Your task to perform on an android device: Go to Google maps Image 0: 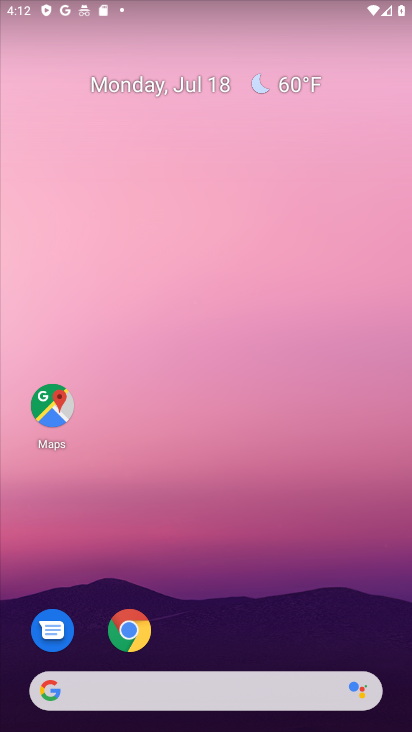
Step 0: drag from (226, 658) to (88, 127)
Your task to perform on an android device: Go to Google maps Image 1: 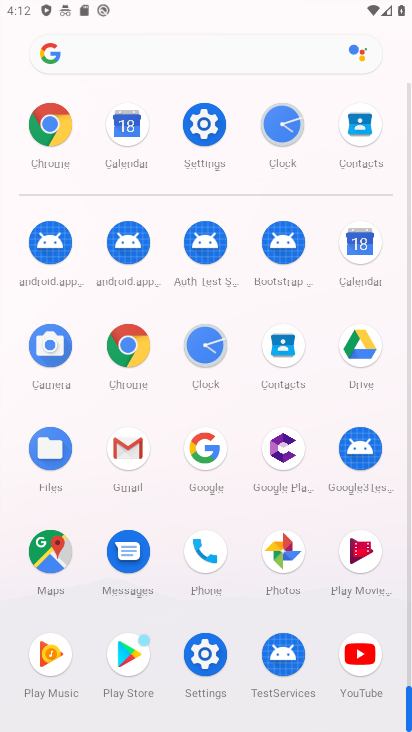
Step 1: click (63, 545)
Your task to perform on an android device: Go to Google maps Image 2: 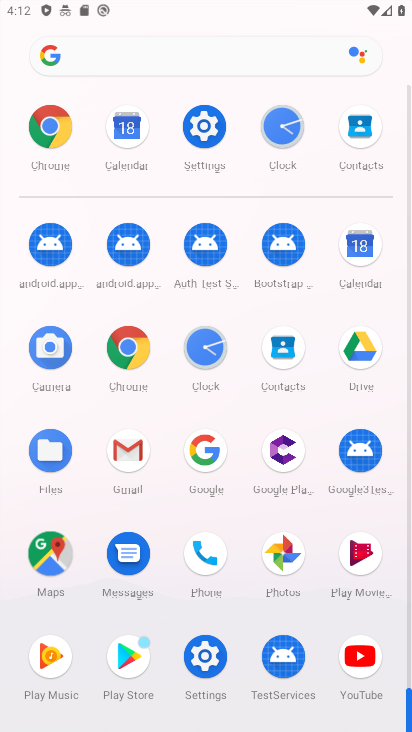
Step 2: click (46, 559)
Your task to perform on an android device: Go to Google maps Image 3: 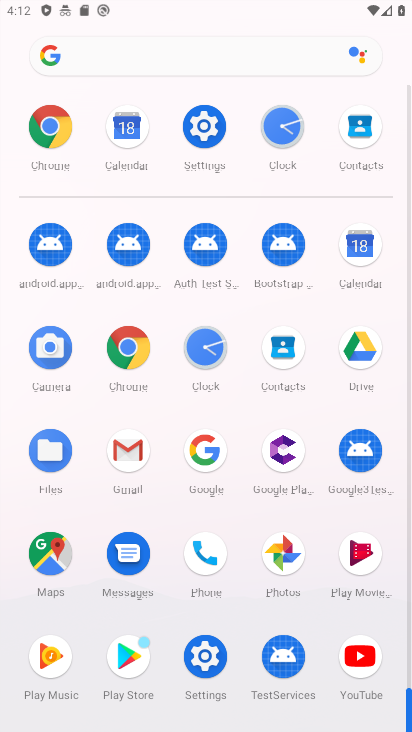
Step 3: click (56, 555)
Your task to perform on an android device: Go to Google maps Image 4: 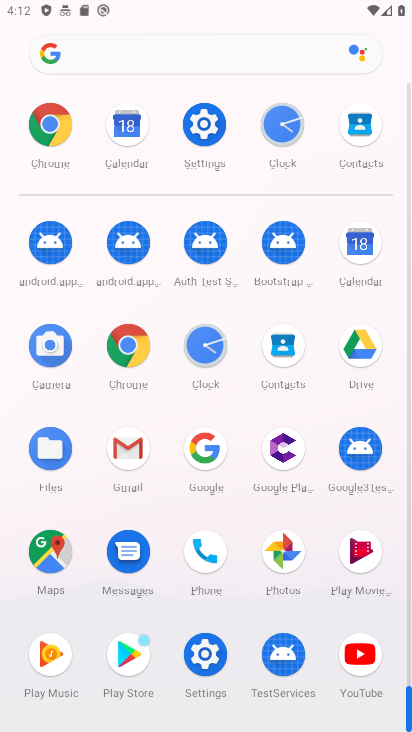
Step 4: click (52, 548)
Your task to perform on an android device: Go to Google maps Image 5: 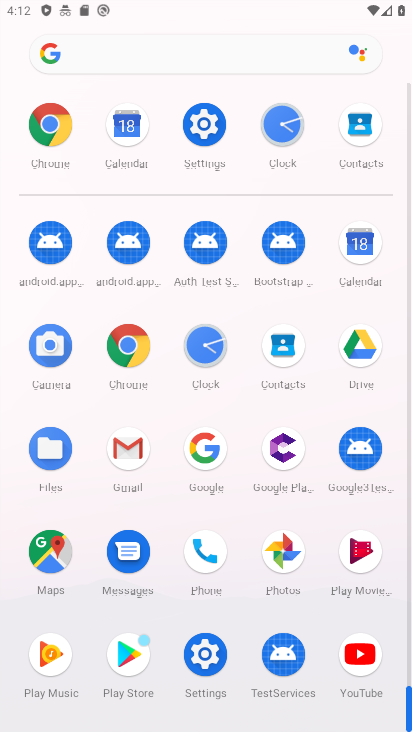
Step 5: click (48, 550)
Your task to perform on an android device: Go to Google maps Image 6: 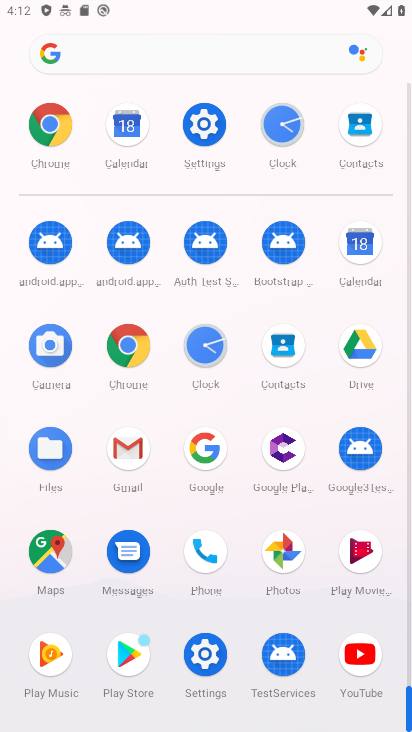
Step 6: click (50, 550)
Your task to perform on an android device: Go to Google maps Image 7: 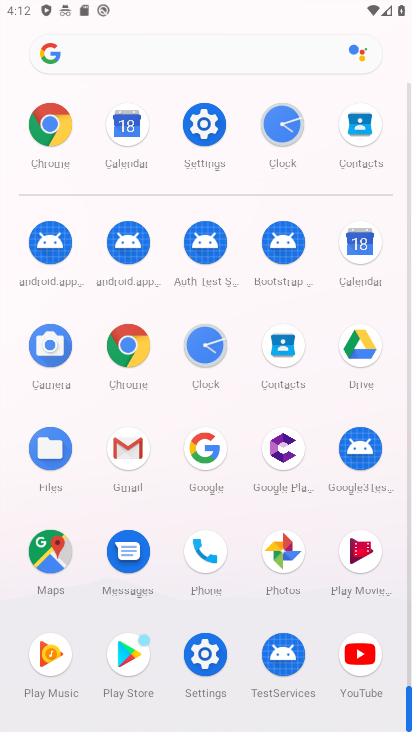
Step 7: click (49, 551)
Your task to perform on an android device: Go to Google maps Image 8: 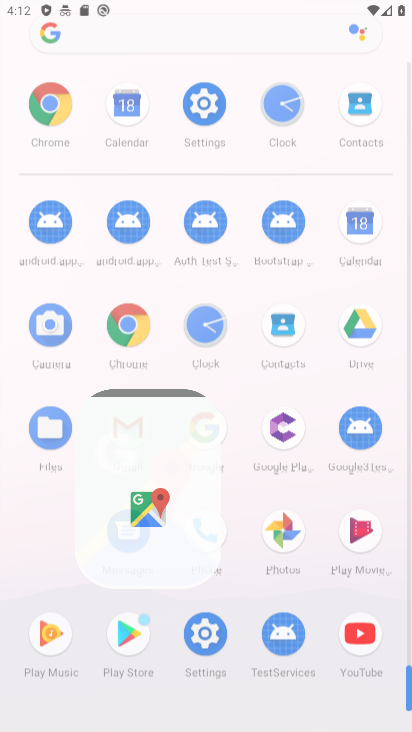
Step 8: click (48, 554)
Your task to perform on an android device: Go to Google maps Image 9: 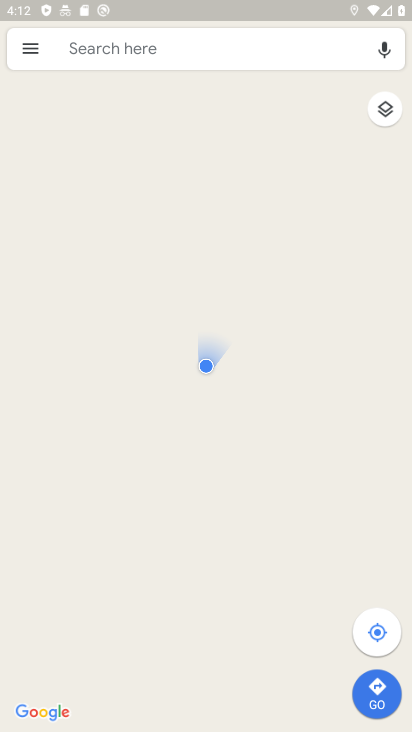
Step 9: task complete